Your task to perform on an android device: Go to wifi settings Image 0: 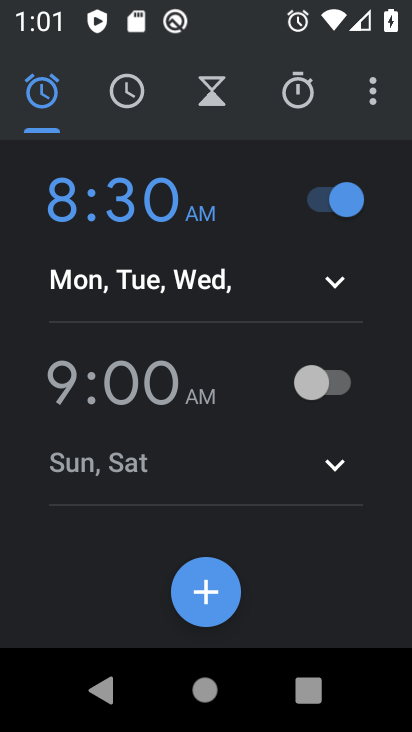
Step 0: drag from (207, 171) to (159, 460)
Your task to perform on an android device: Go to wifi settings Image 1: 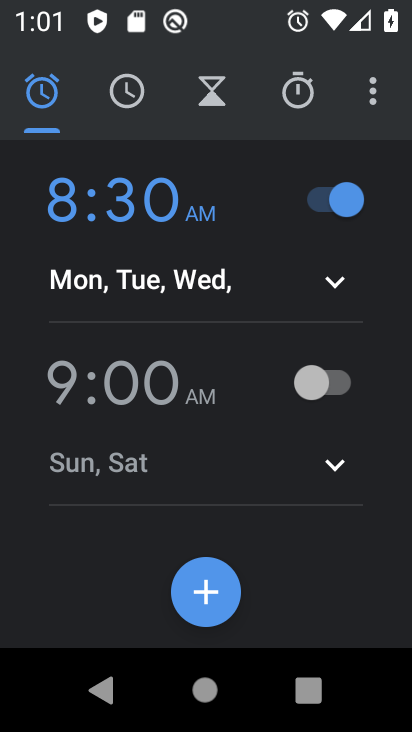
Step 1: click (335, 25)
Your task to perform on an android device: Go to wifi settings Image 2: 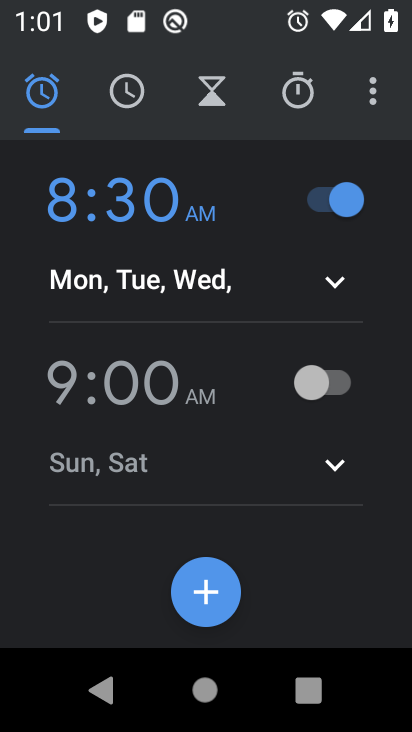
Step 2: drag from (335, 25) to (251, 255)
Your task to perform on an android device: Go to wifi settings Image 3: 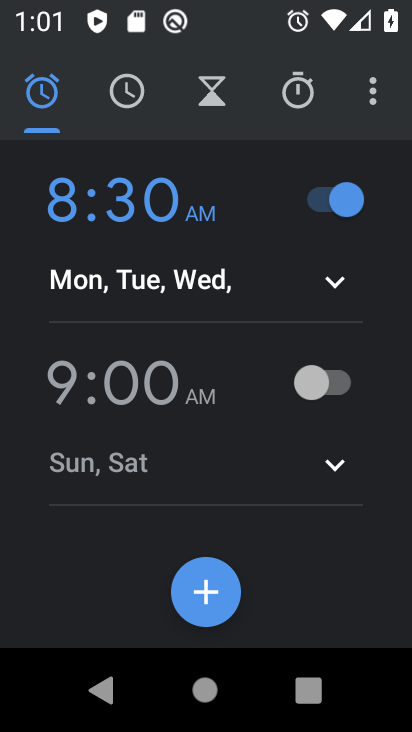
Step 3: drag from (216, 13) to (168, 650)
Your task to perform on an android device: Go to wifi settings Image 4: 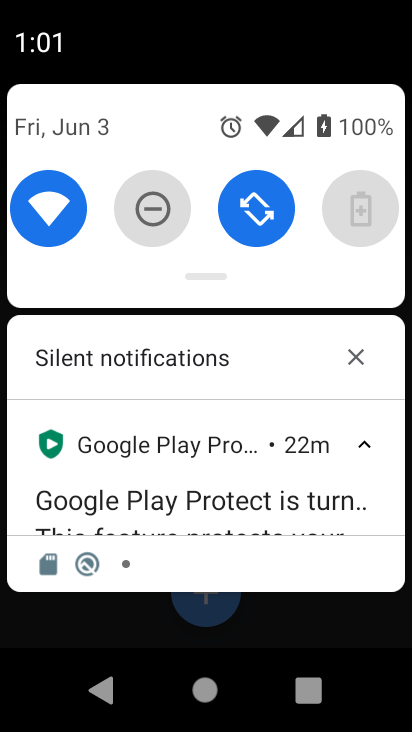
Step 4: click (54, 229)
Your task to perform on an android device: Go to wifi settings Image 5: 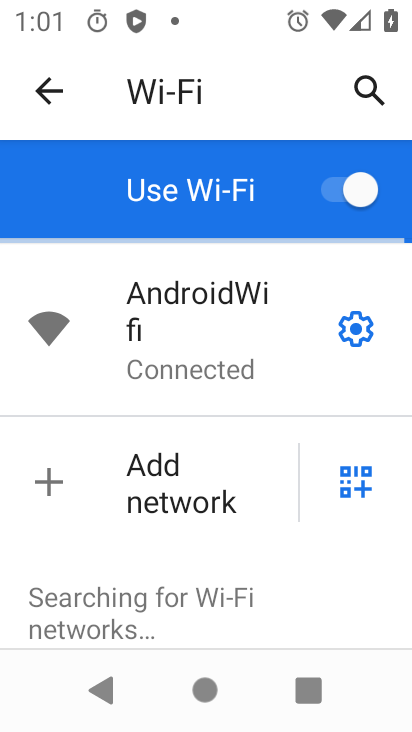
Step 5: task complete